Your task to perform on an android device: empty trash in the gmail app Image 0: 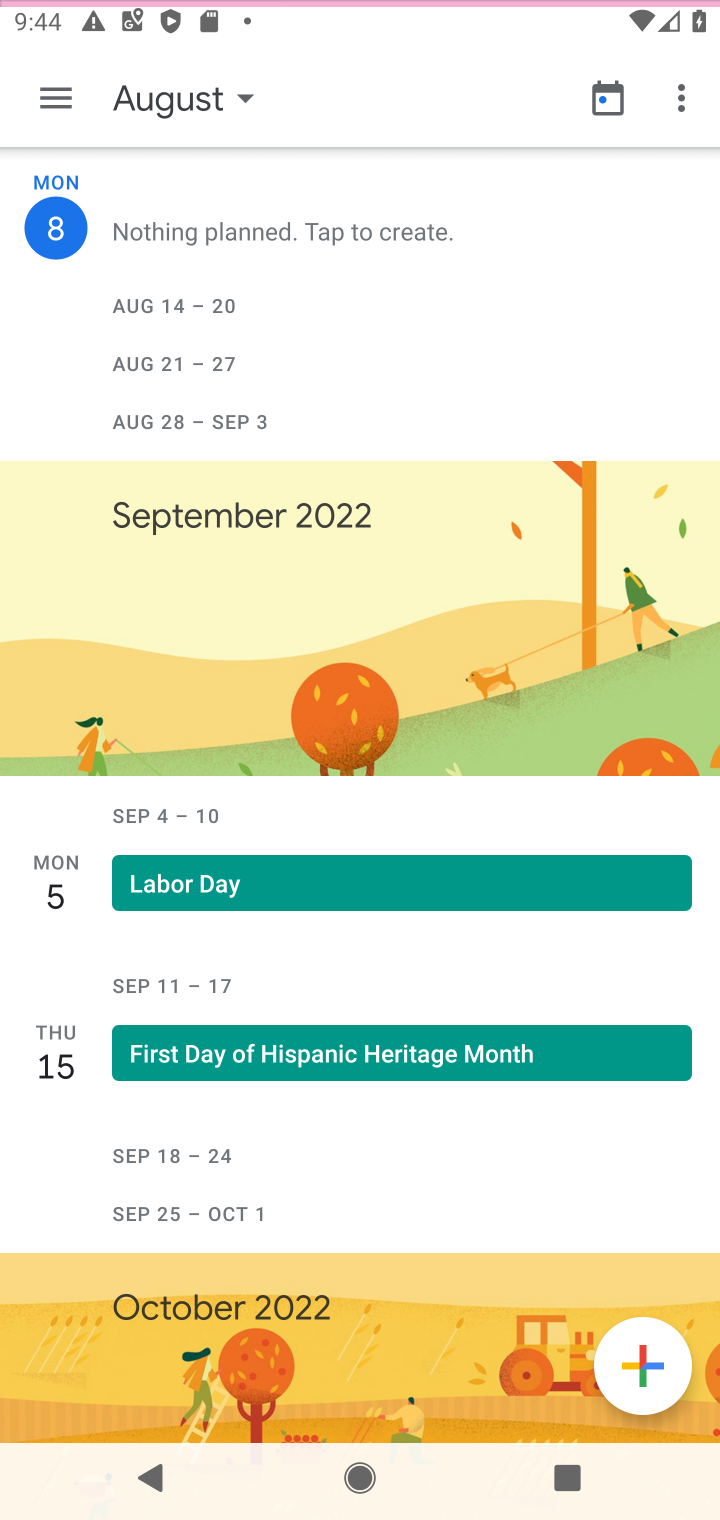
Step 0: press home button
Your task to perform on an android device: empty trash in the gmail app Image 1: 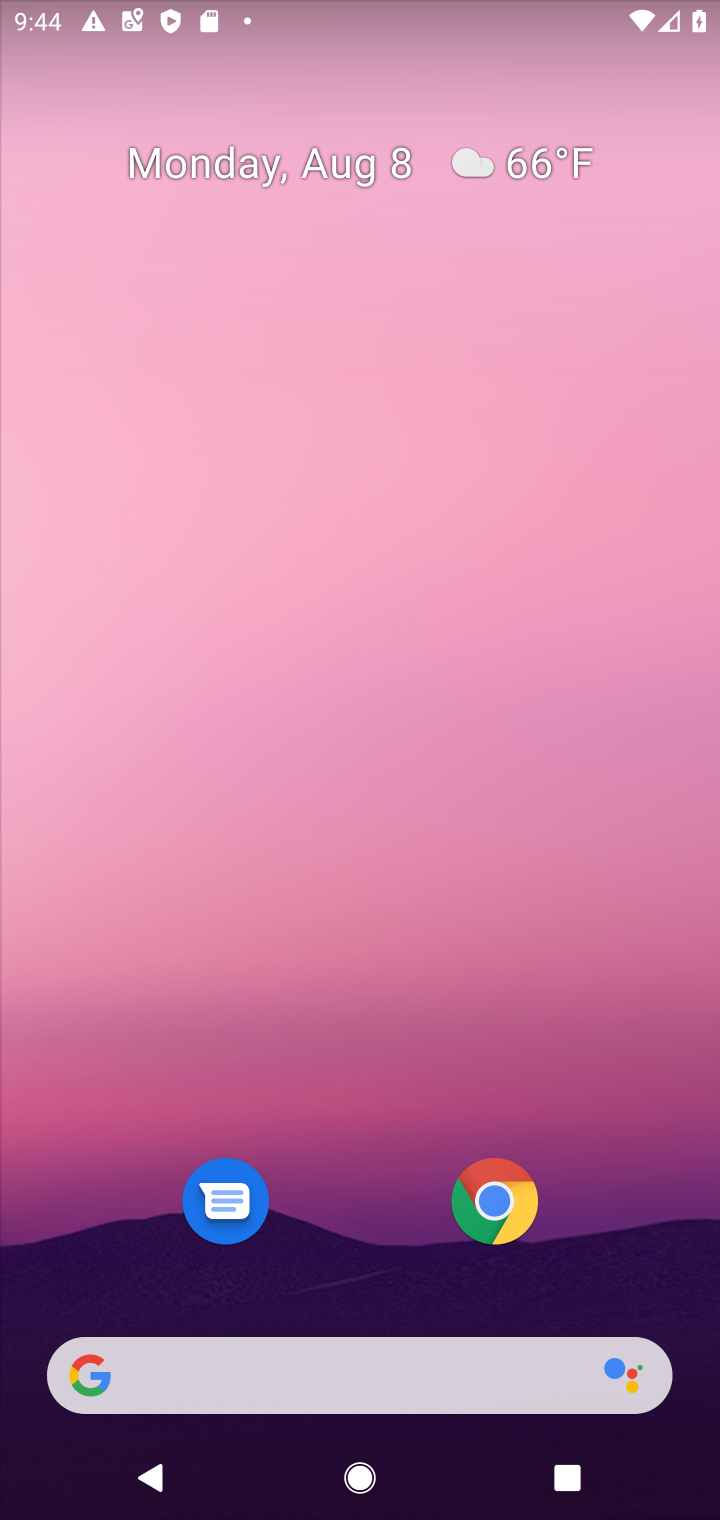
Step 1: press home button
Your task to perform on an android device: empty trash in the gmail app Image 2: 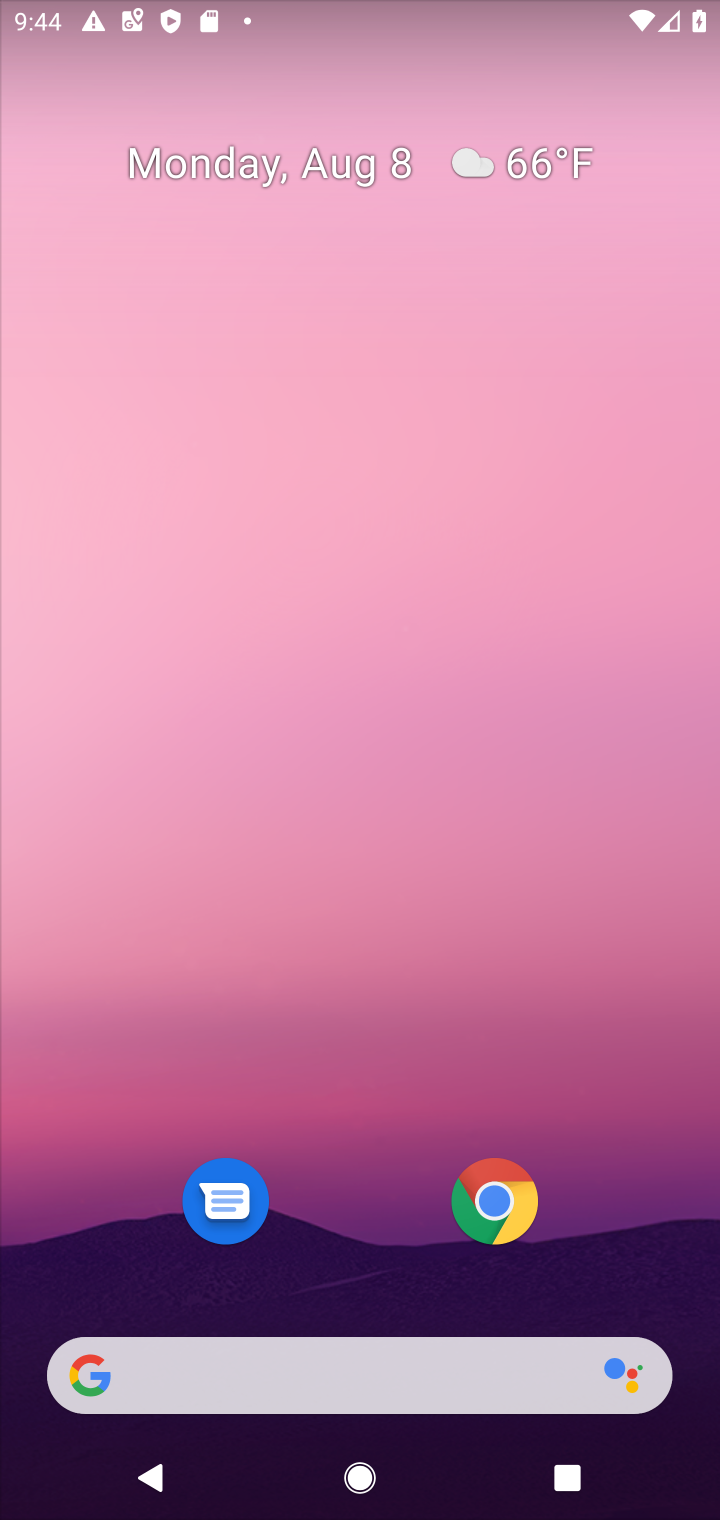
Step 2: drag from (645, 1151) to (626, 175)
Your task to perform on an android device: empty trash in the gmail app Image 3: 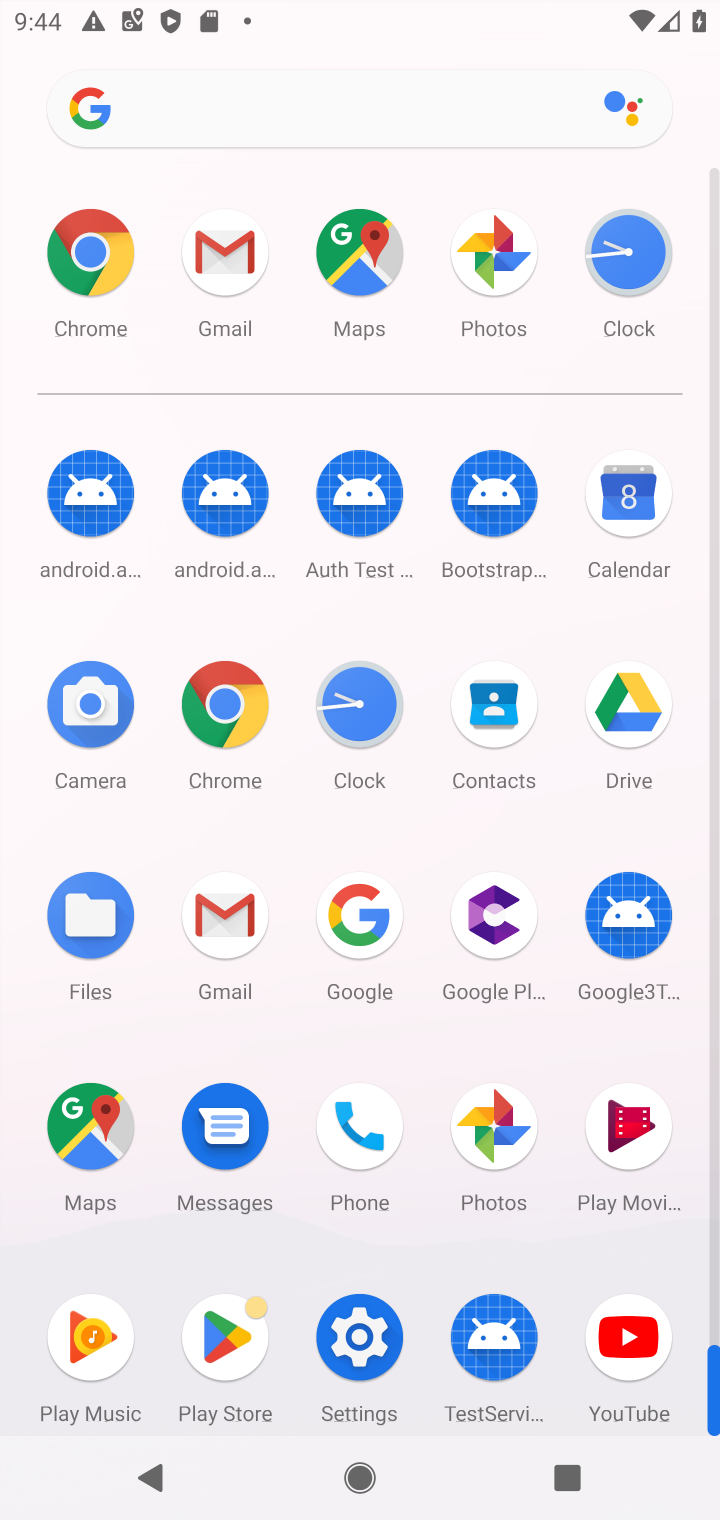
Step 3: click (226, 916)
Your task to perform on an android device: empty trash in the gmail app Image 4: 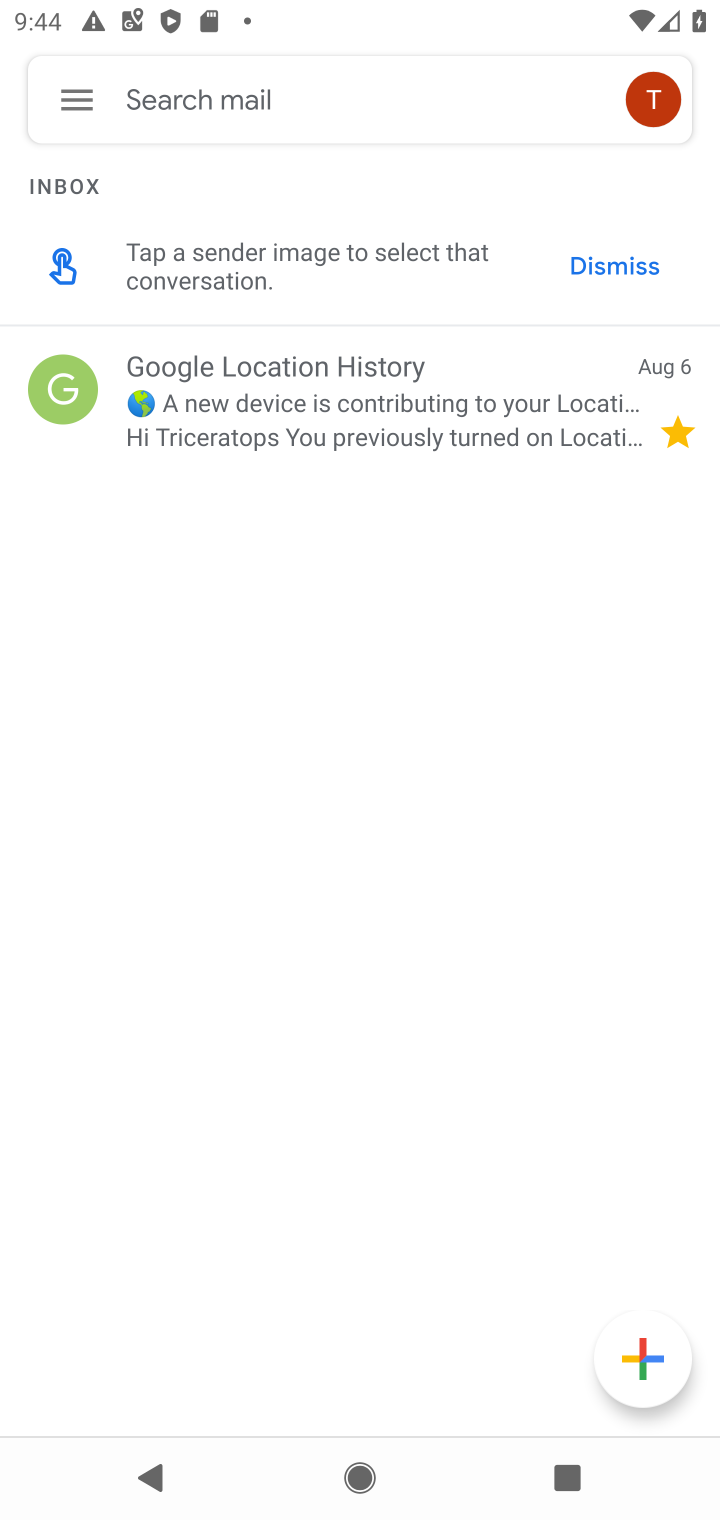
Step 4: click (76, 97)
Your task to perform on an android device: empty trash in the gmail app Image 5: 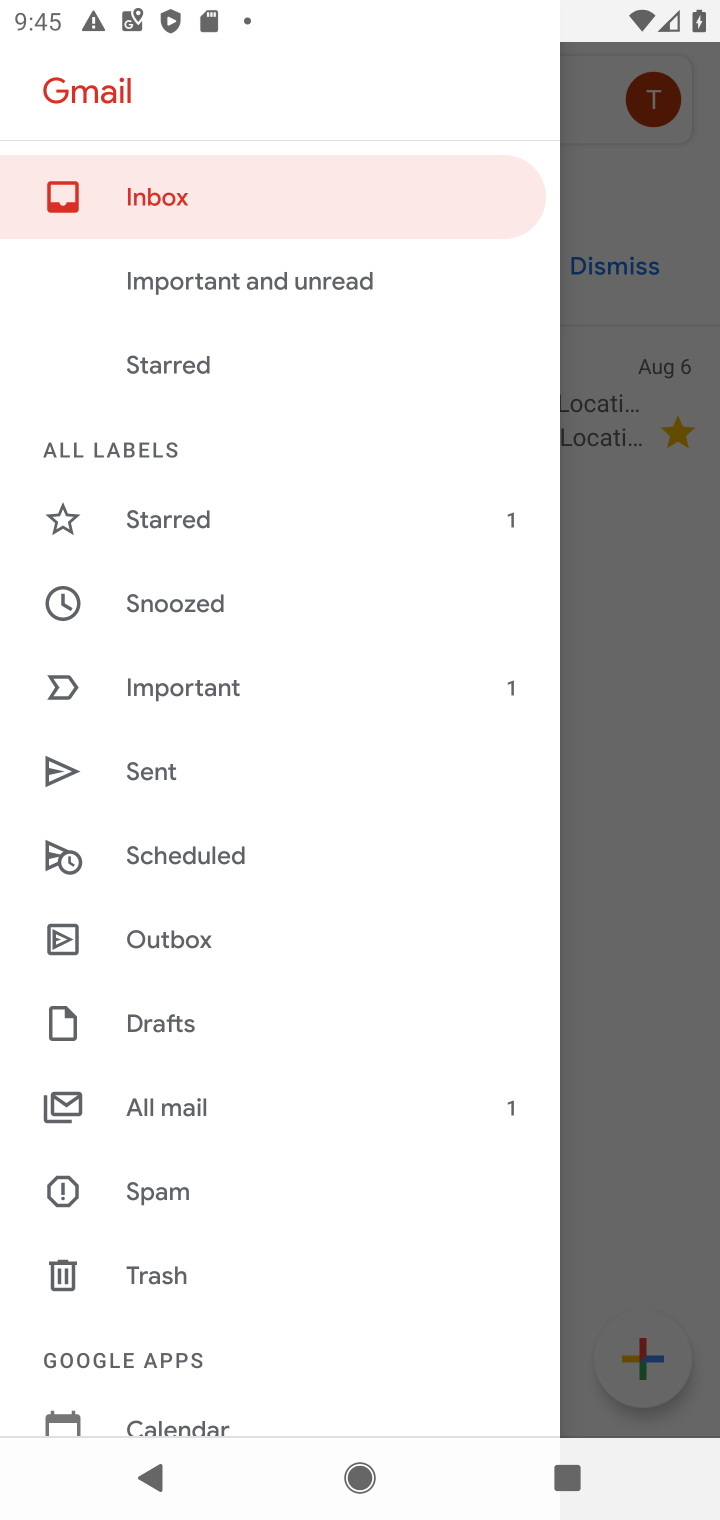
Step 5: click (167, 1280)
Your task to perform on an android device: empty trash in the gmail app Image 6: 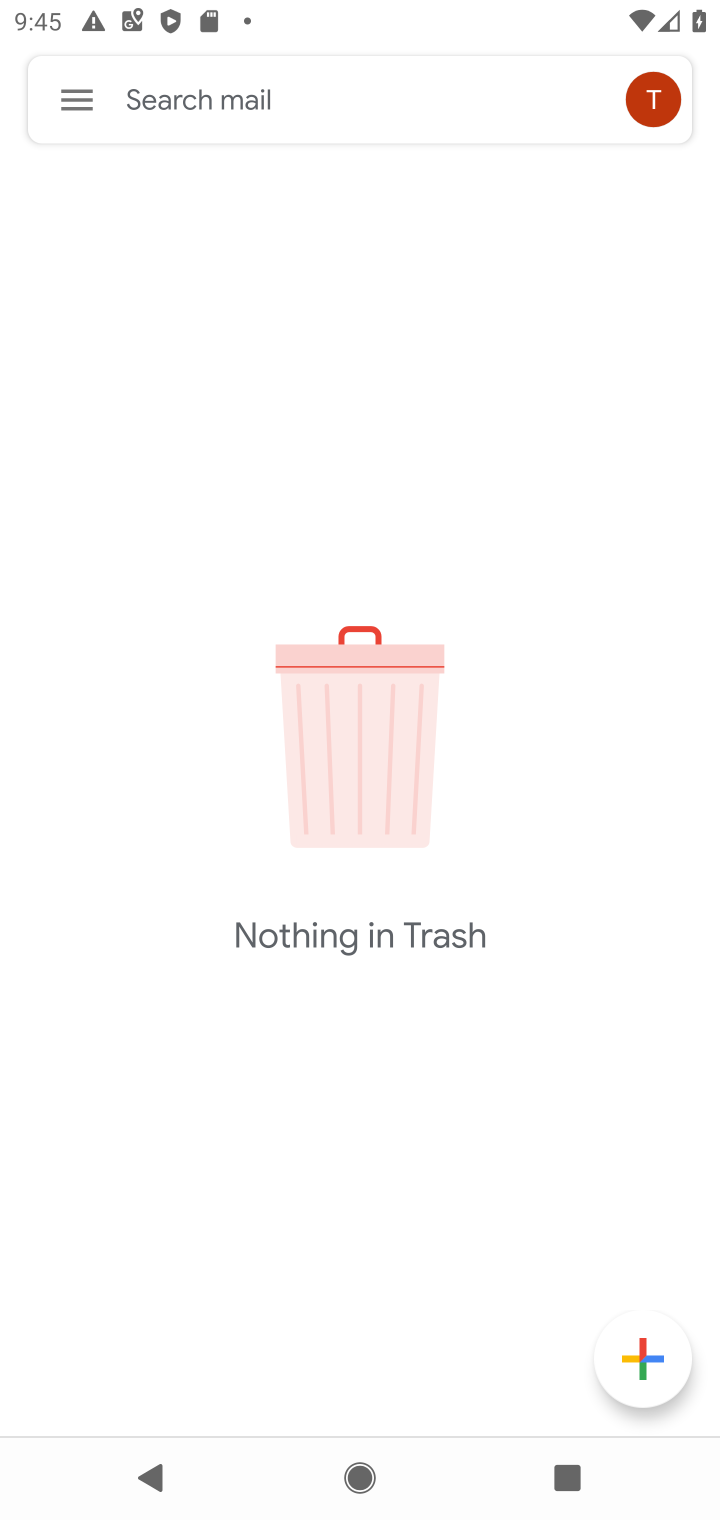
Step 6: task complete